Your task to perform on an android device: turn on wifi Image 0: 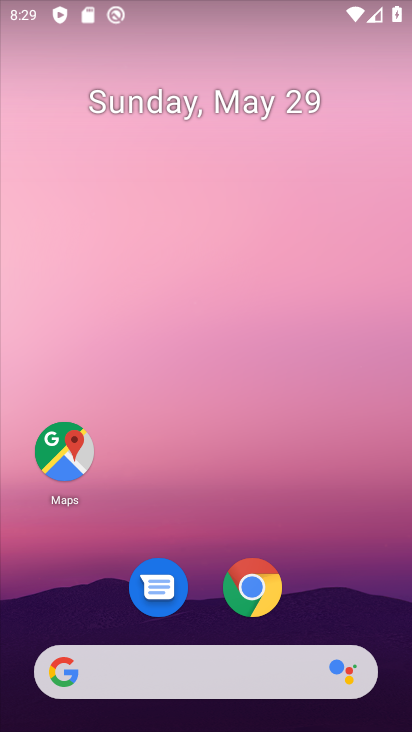
Step 0: drag from (233, 27) to (333, 662)
Your task to perform on an android device: turn on wifi Image 1: 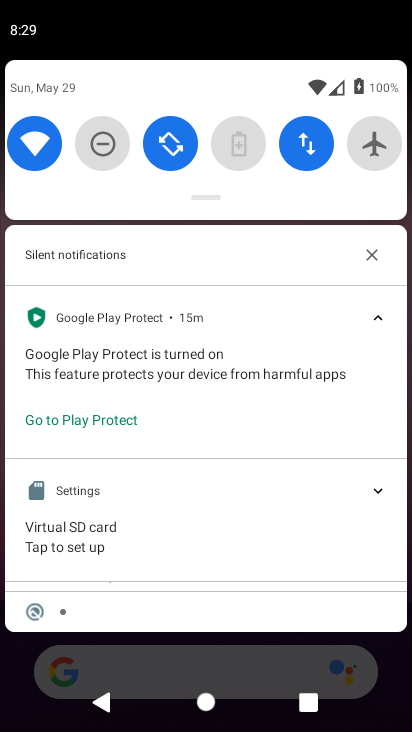
Step 1: task complete